Your task to perform on an android device: What's the weather going to be this weekend? Image 0: 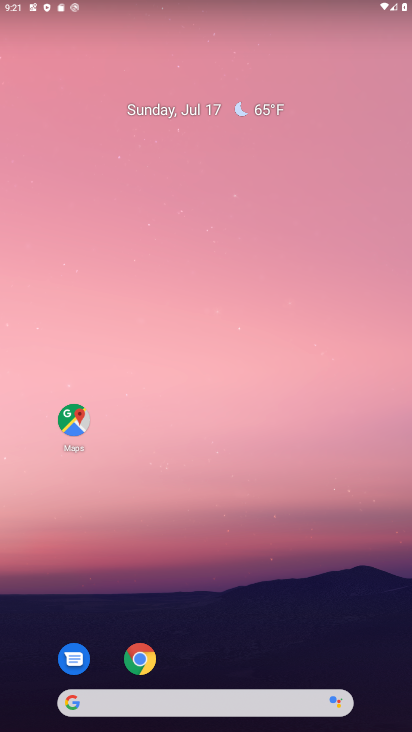
Step 0: click (266, 124)
Your task to perform on an android device: What's the weather going to be this weekend? Image 1: 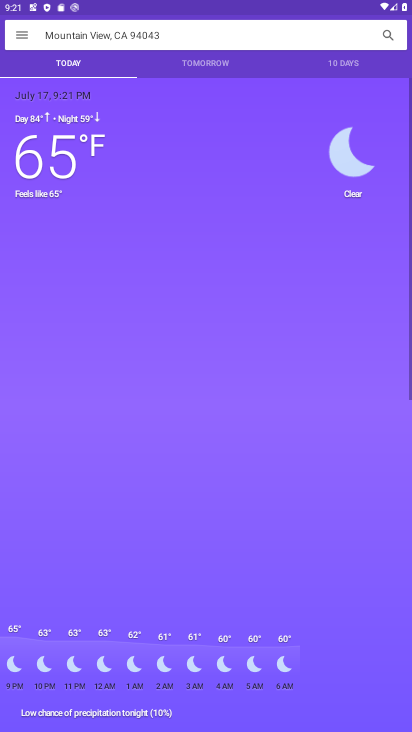
Step 1: click (342, 71)
Your task to perform on an android device: What's the weather going to be this weekend? Image 2: 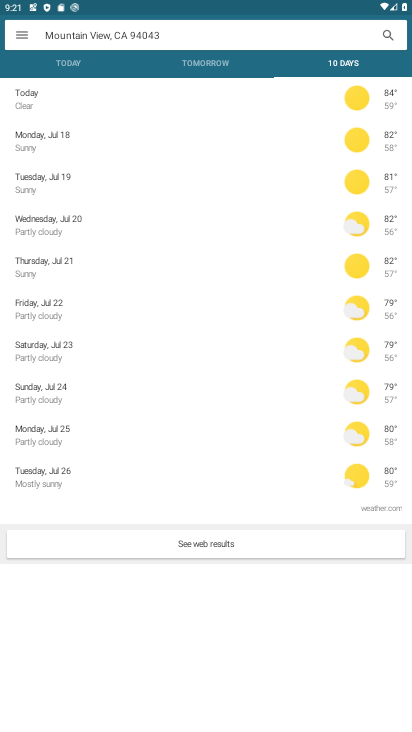
Step 2: task complete